Your task to perform on an android device: Go to CNN.com Image 0: 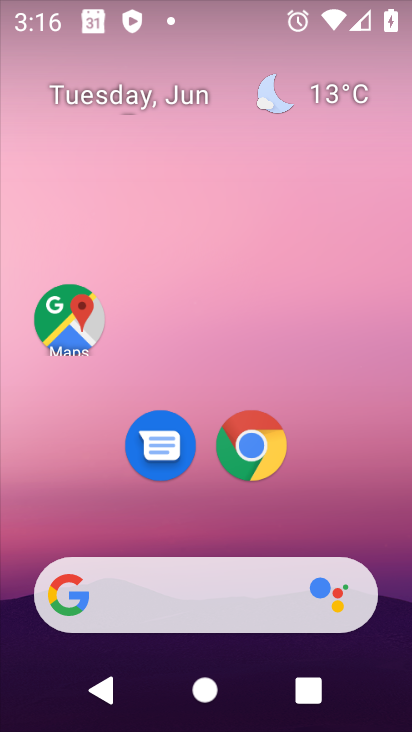
Step 0: click (248, 445)
Your task to perform on an android device: Go to CNN.com Image 1: 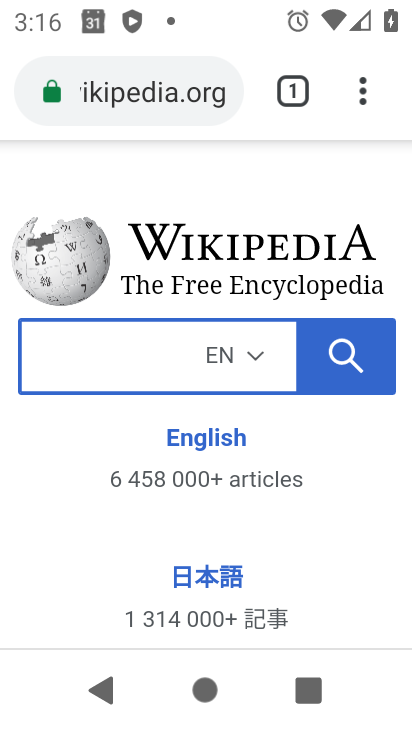
Step 1: click (190, 77)
Your task to perform on an android device: Go to CNN.com Image 2: 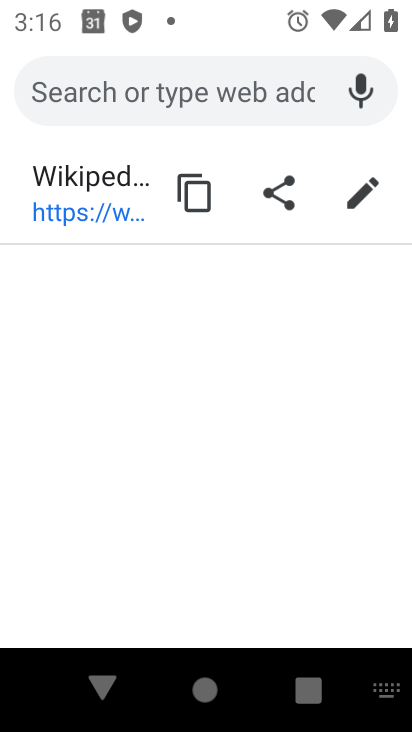
Step 2: type "cnn.com"
Your task to perform on an android device: Go to CNN.com Image 3: 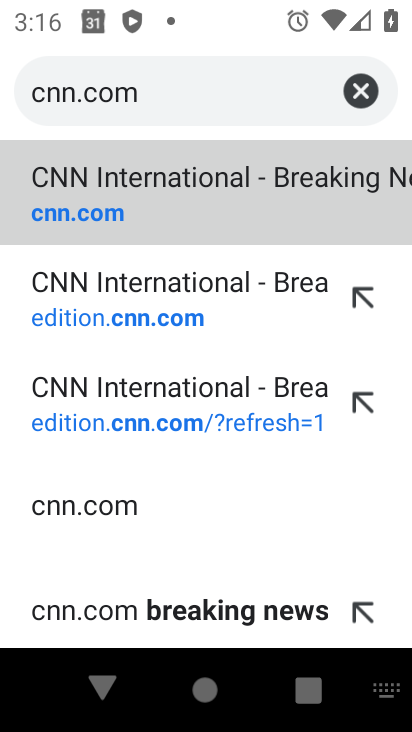
Step 3: click (102, 197)
Your task to perform on an android device: Go to CNN.com Image 4: 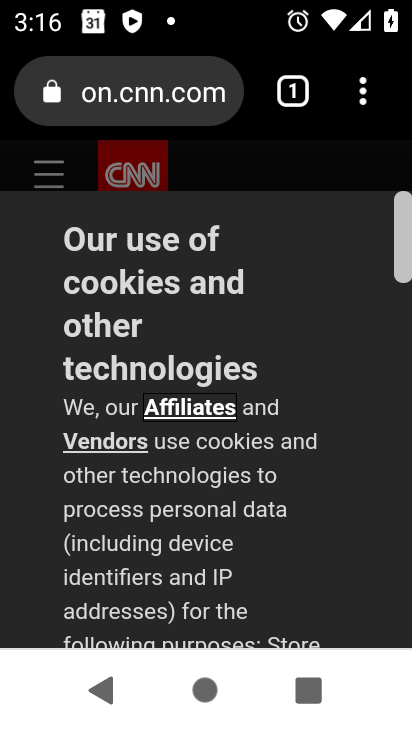
Step 4: task complete